Your task to perform on an android device: Go to accessibility settings Image 0: 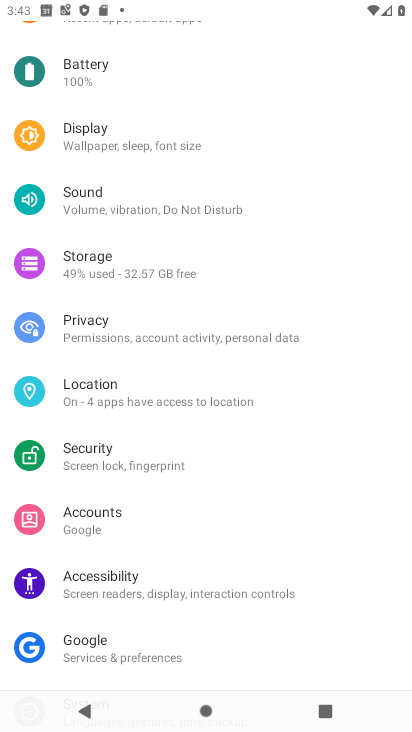
Step 0: click (212, 585)
Your task to perform on an android device: Go to accessibility settings Image 1: 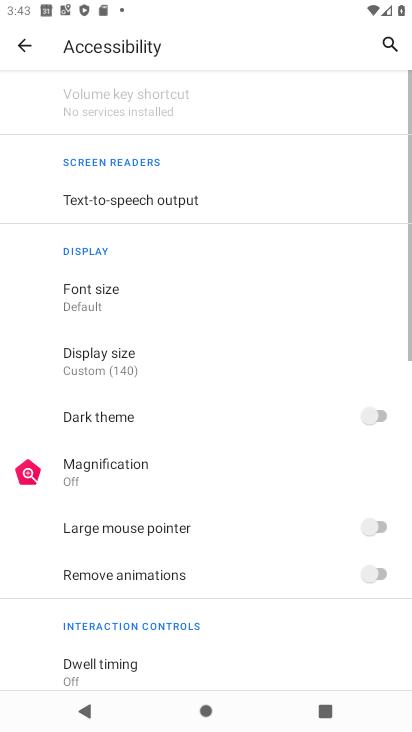
Step 1: task complete